Your task to perform on an android device: check out phone information Image 0: 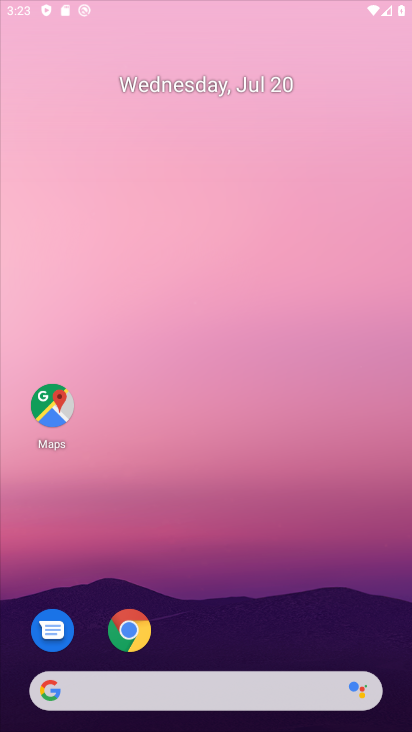
Step 0: press home button
Your task to perform on an android device: check out phone information Image 1: 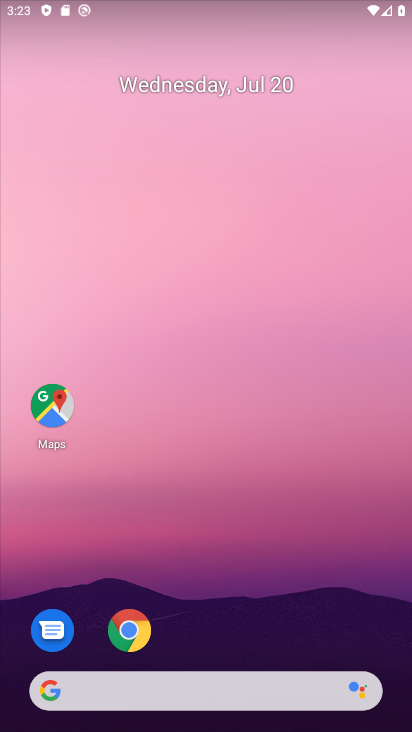
Step 1: drag from (234, 628) to (289, 81)
Your task to perform on an android device: check out phone information Image 2: 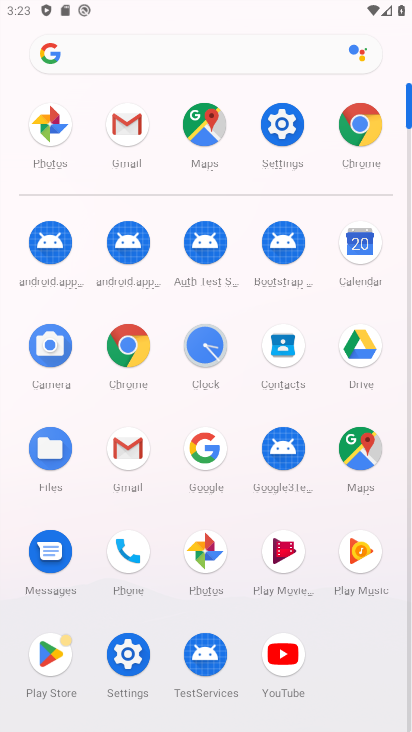
Step 2: click (291, 132)
Your task to perform on an android device: check out phone information Image 3: 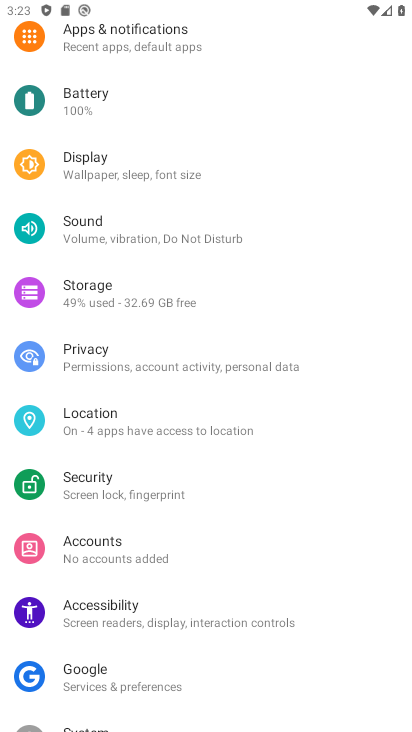
Step 3: drag from (251, 674) to (282, 49)
Your task to perform on an android device: check out phone information Image 4: 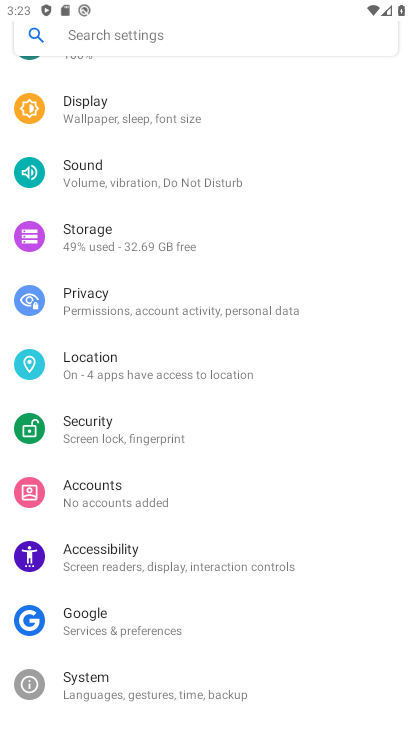
Step 4: drag from (346, 650) to (351, 18)
Your task to perform on an android device: check out phone information Image 5: 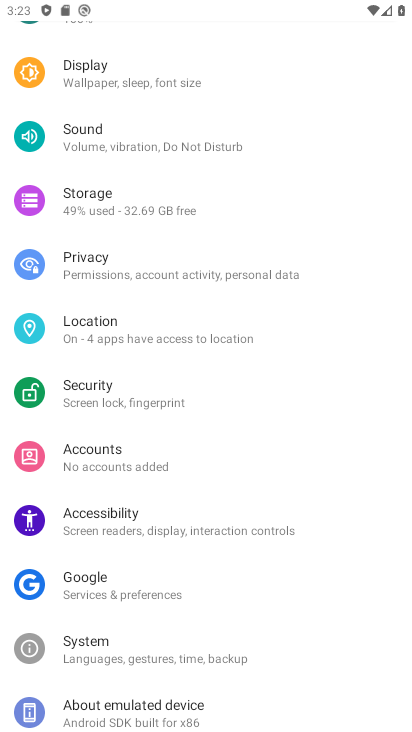
Step 5: click (103, 692)
Your task to perform on an android device: check out phone information Image 6: 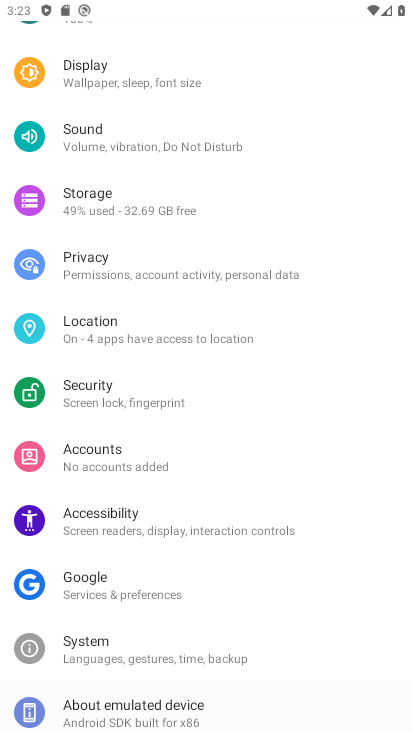
Step 6: click (105, 700)
Your task to perform on an android device: check out phone information Image 7: 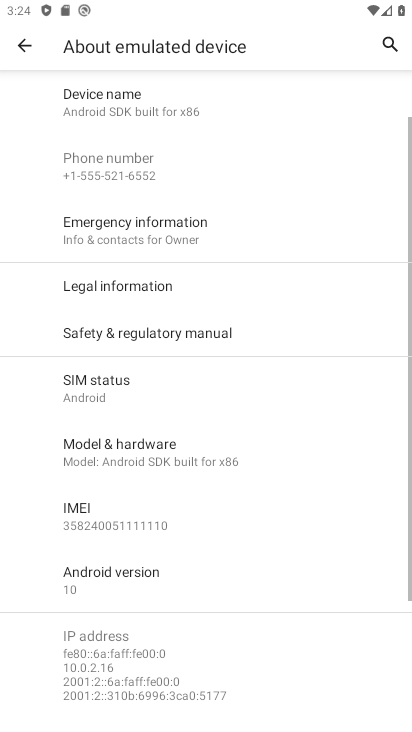
Step 7: click (150, 223)
Your task to perform on an android device: check out phone information Image 8: 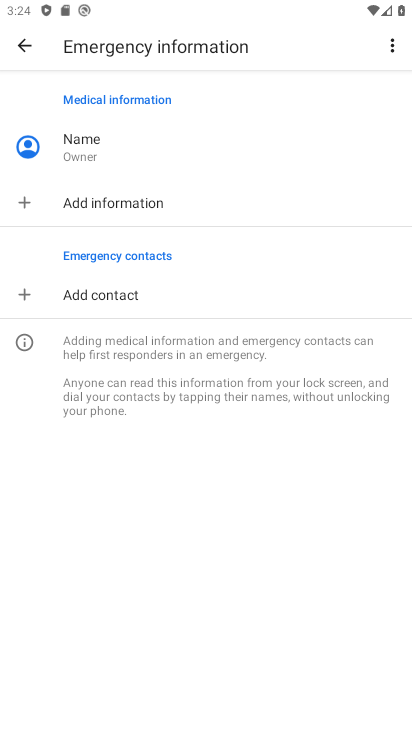
Step 8: task complete